Your task to perform on an android device: Check the weather Image 0: 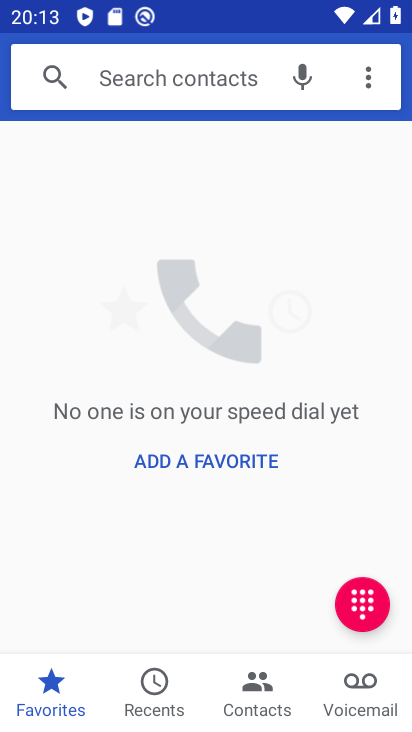
Step 0: press home button
Your task to perform on an android device: Check the weather Image 1: 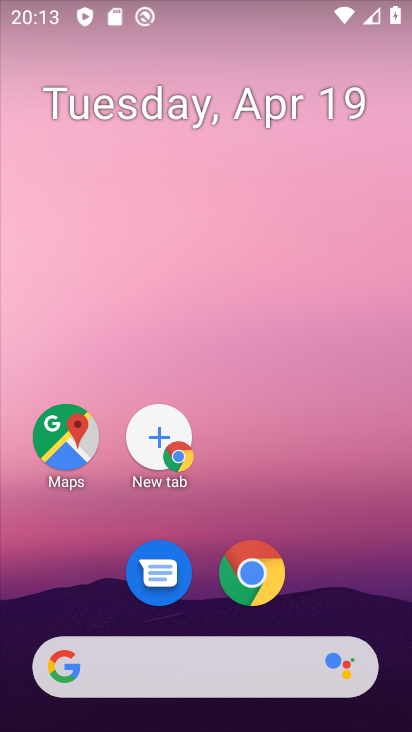
Step 1: click (383, 312)
Your task to perform on an android device: Check the weather Image 2: 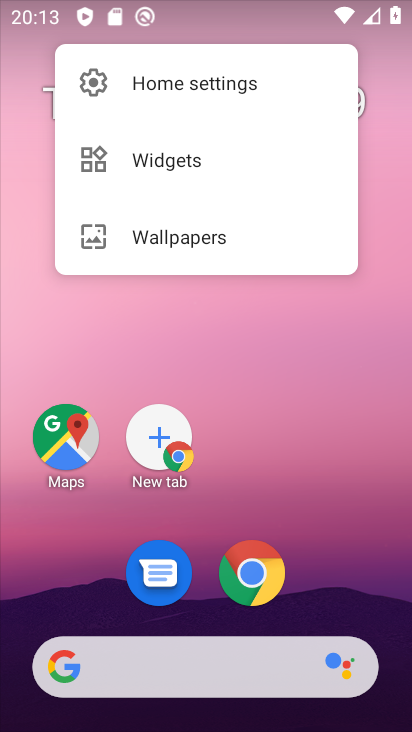
Step 2: click (277, 293)
Your task to perform on an android device: Check the weather Image 3: 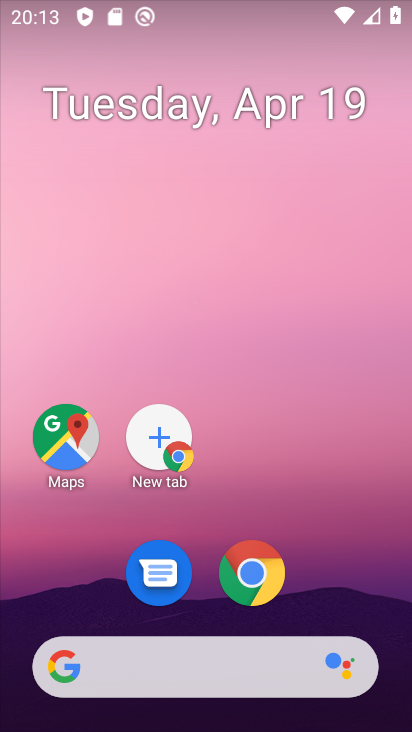
Step 3: drag from (401, 309) to (406, 263)
Your task to perform on an android device: Check the weather Image 4: 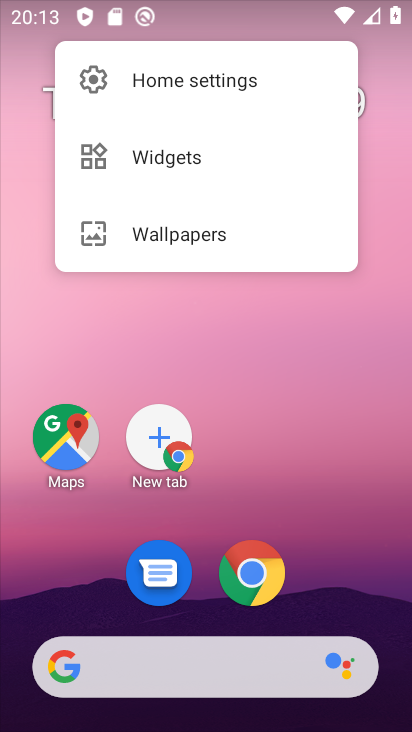
Step 4: drag from (40, 288) to (396, 301)
Your task to perform on an android device: Check the weather Image 5: 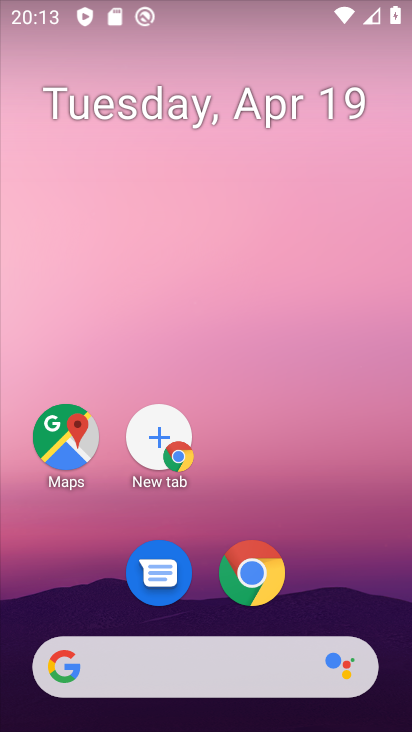
Step 5: click (382, 258)
Your task to perform on an android device: Check the weather Image 6: 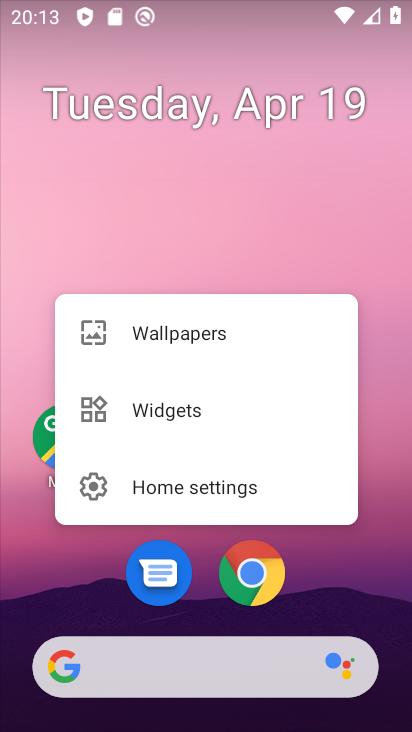
Step 6: drag from (6, 224) to (309, 211)
Your task to perform on an android device: Check the weather Image 7: 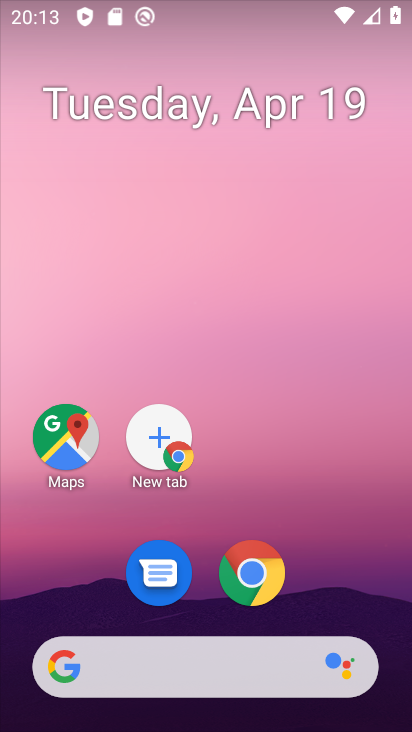
Step 7: drag from (10, 229) to (404, 230)
Your task to perform on an android device: Check the weather Image 8: 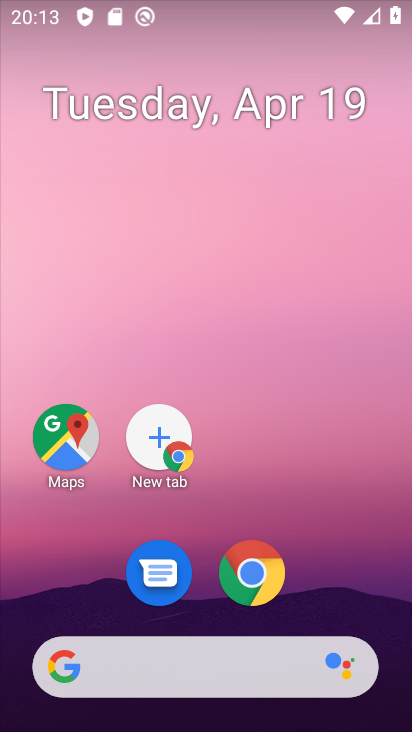
Step 8: drag from (3, 250) to (410, 275)
Your task to perform on an android device: Check the weather Image 9: 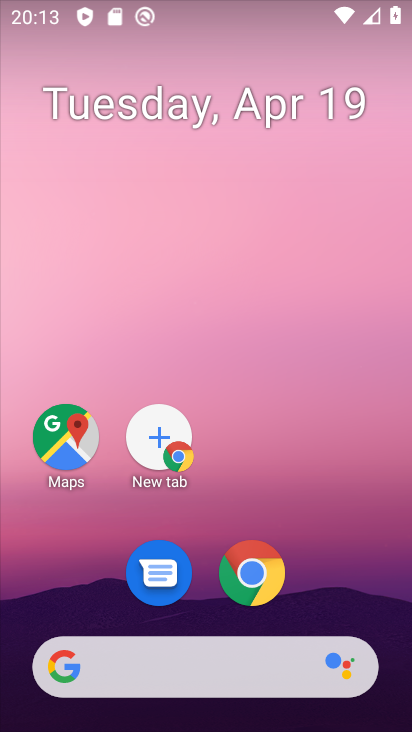
Step 9: click (9, 247)
Your task to perform on an android device: Check the weather Image 10: 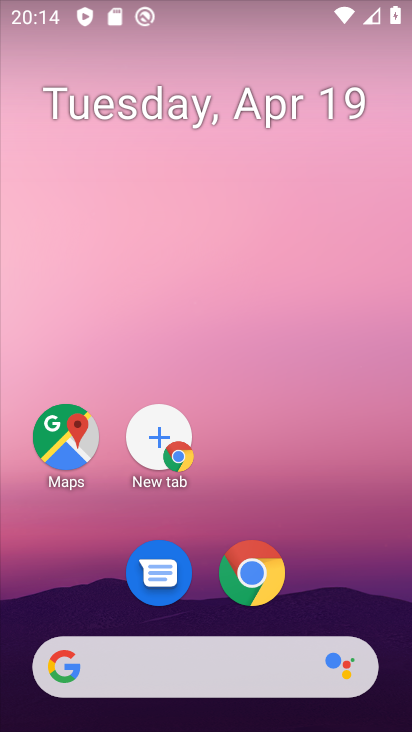
Step 10: task complete